Your task to perform on an android device: Do I have any events today? Image 0: 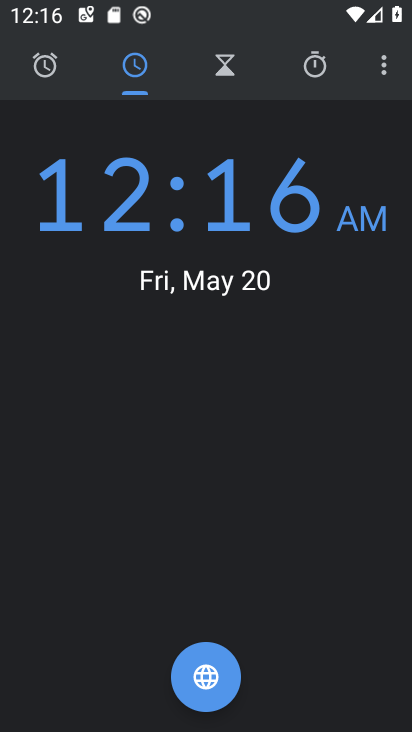
Step 0: press home button
Your task to perform on an android device: Do I have any events today? Image 1: 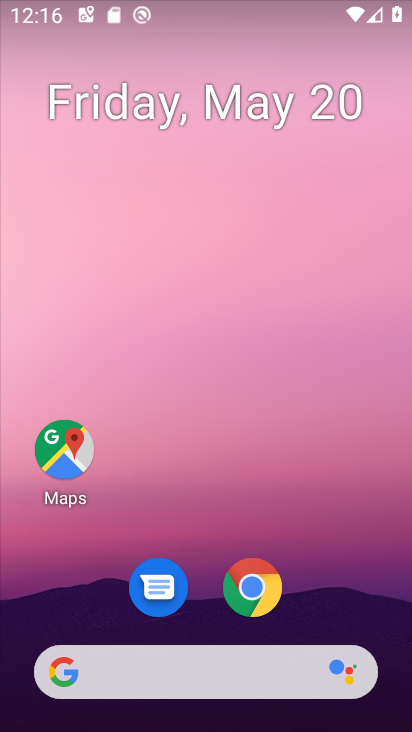
Step 1: drag from (369, 610) to (375, 268)
Your task to perform on an android device: Do I have any events today? Image 2: 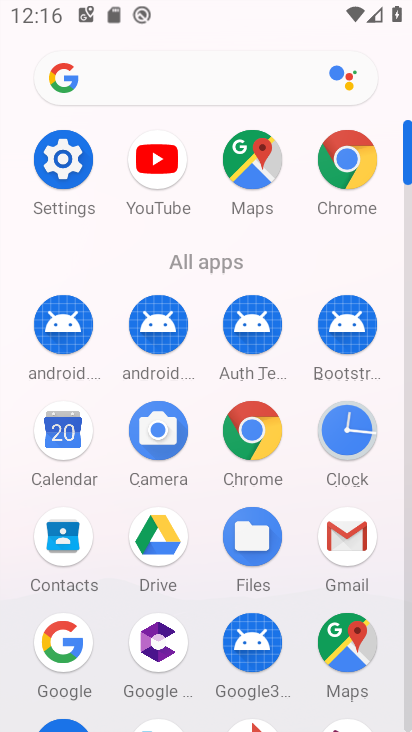
Step 2: click (60, 457)
Your task to perform on an android device: Do I have any events today? Image 3: 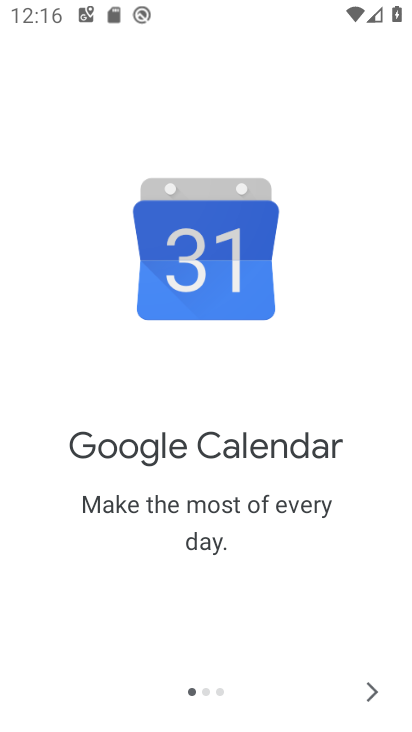
Step 3: click (375, 697)
Your task to perform on an android device: Do I have any events today? Image 4: 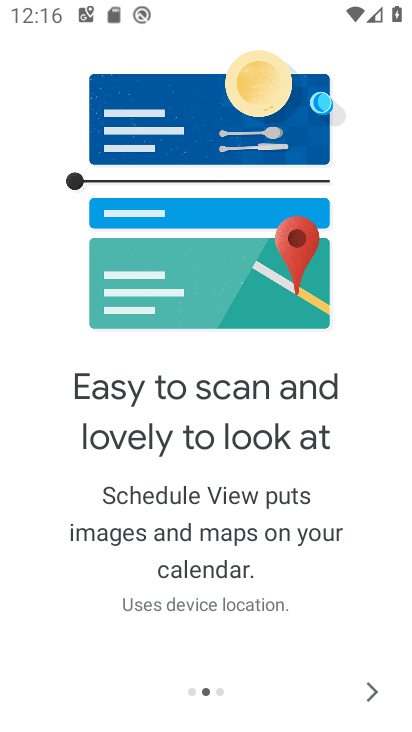
Step 4: click (375, 697)
Your task to perform on an android device: Do I have any events today? Image 5: 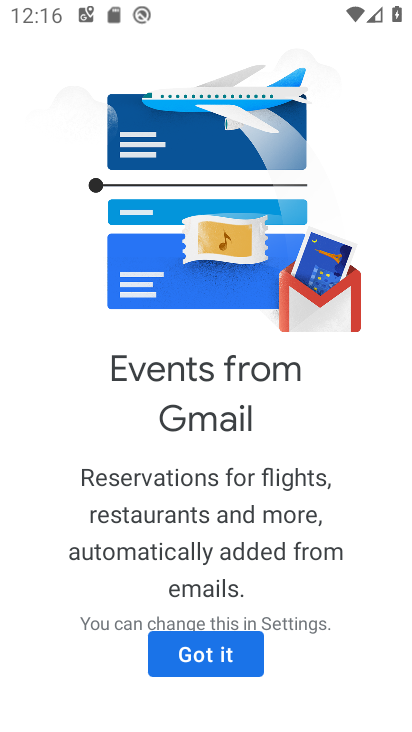
Step 5: click (201, 659)
Your task to perform on an android device: Do I have any events today? Image 6: 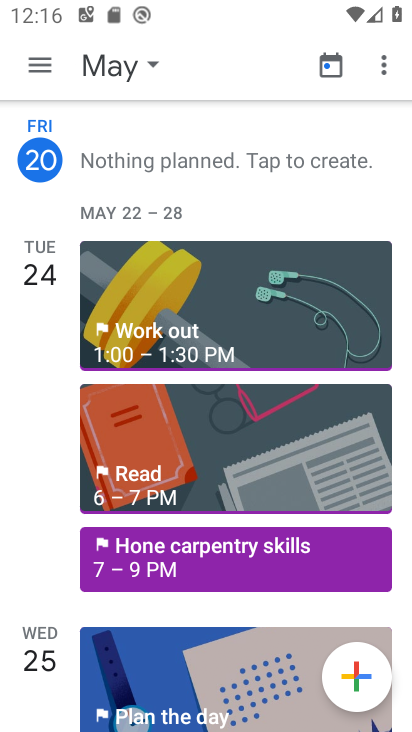
Step 6: task complete